Your task to perform on an android device: Go to battery settings Image 0: 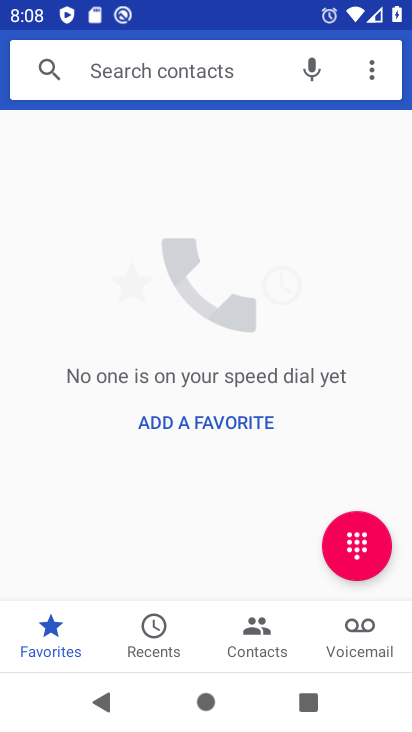
Step 0: press back button
Your task to perform on an android device: Go to battery settings Image 1: 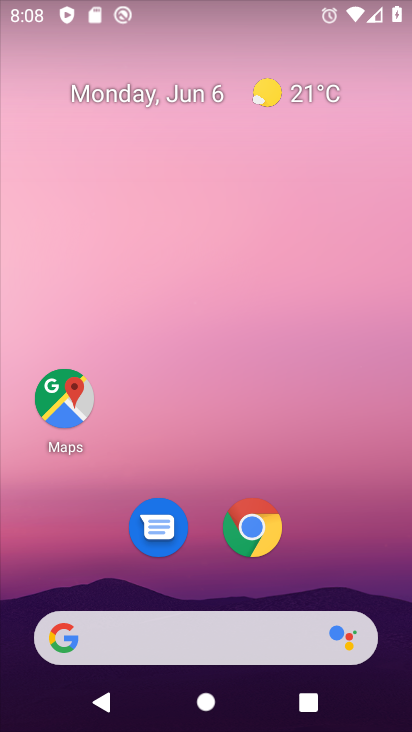
Step 1: drag from (212, 600) to (240, 68)
Your task to perform on an android device: Go to battery settings Image 2: 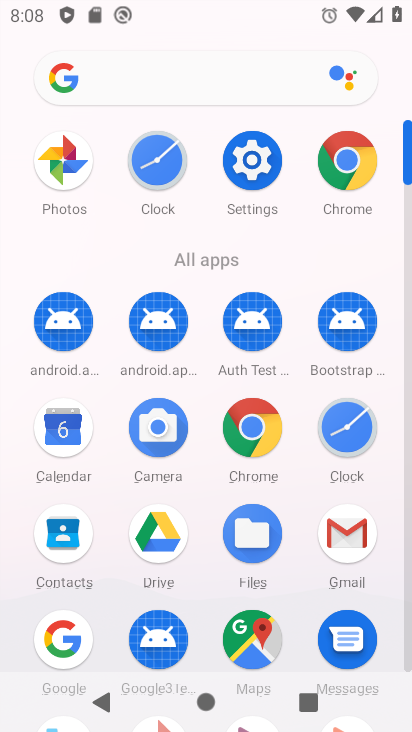
Step 2: click (250, 152)
Your task to perform on an android device: Go to battery settings Image 3: 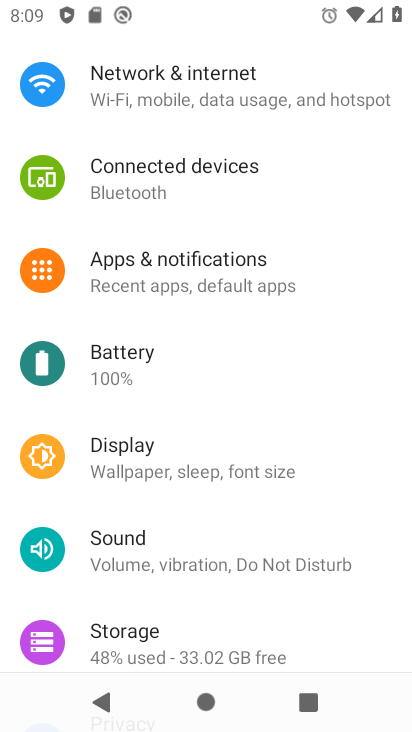
Step 3: click (124, 364)
Your task to perform on an android device: Go to battery settings Image 4: 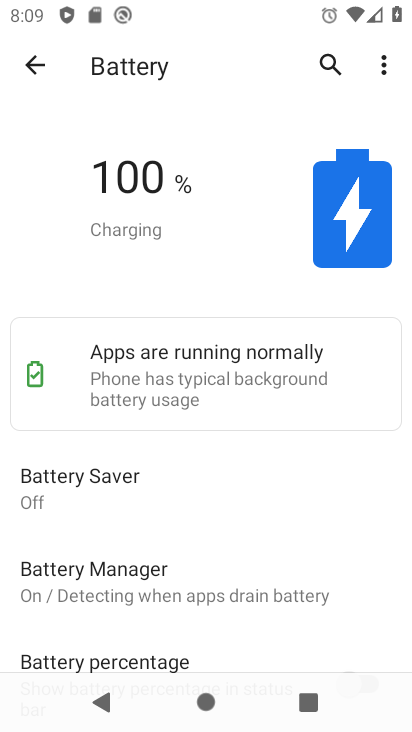
Step 4: task complete